Your task to perform on an android device: turn off notifications settings in the gmail app Image 0: 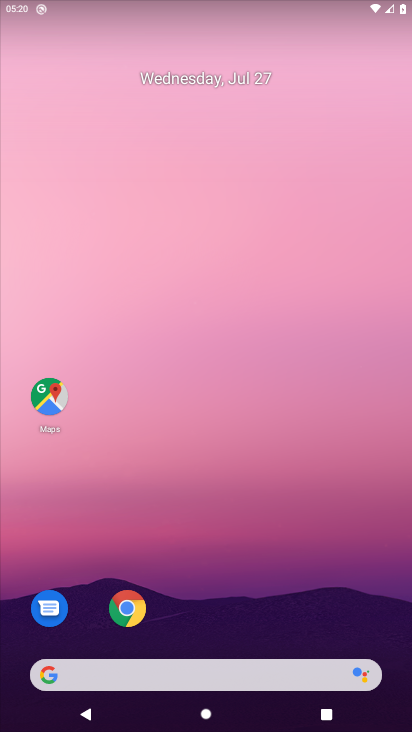
Step 0: press home button
Your task to perform on an android device: turn off notifications settings in the gmail app Image 1: 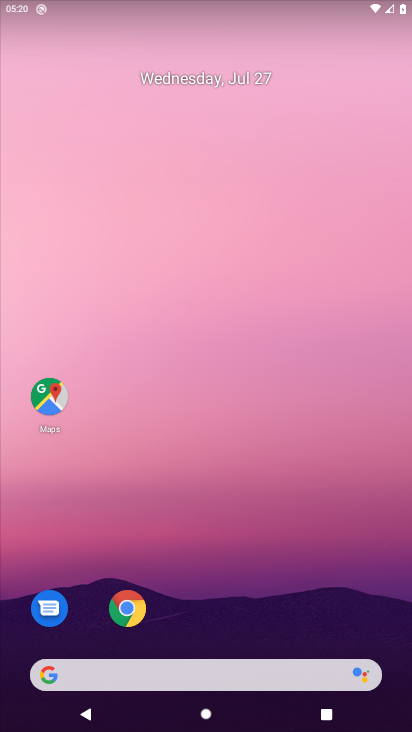
Step 1: drag from (277, 611) to (108, 12)
Your task to perform on an android device: turn off notifications settings in the gmail app Image 2: 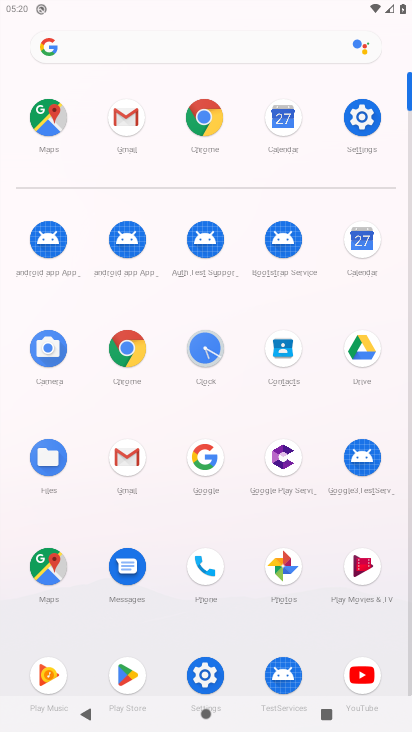
Step 2: click (122, 127)
Your task to perform on an android device: turn off notifications settings in the gmail app Image 3: 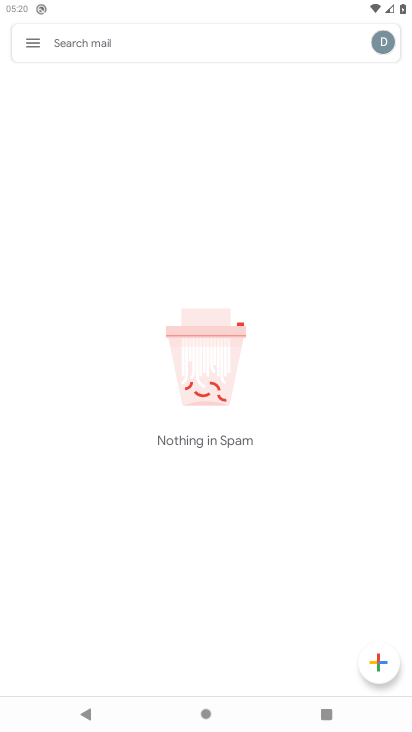
Step 3: click (28, 51)
Your task to perform on an android device: turn off notifications settings in the gmail app Image 4: 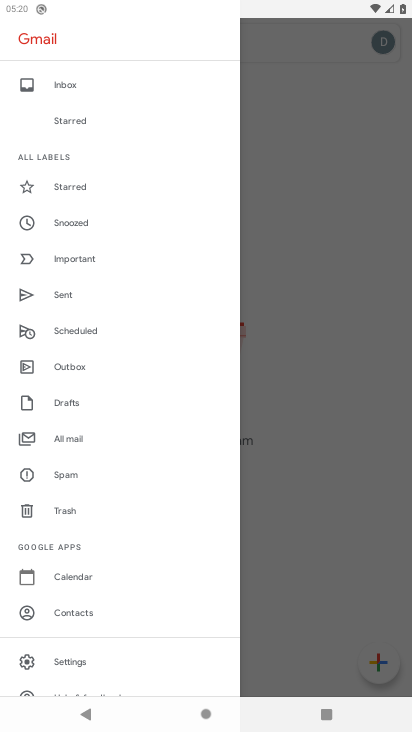
Step 4: click (55, 663)
Your task to perform on an android device: turn off notifications settings in the gmail app Image 5: 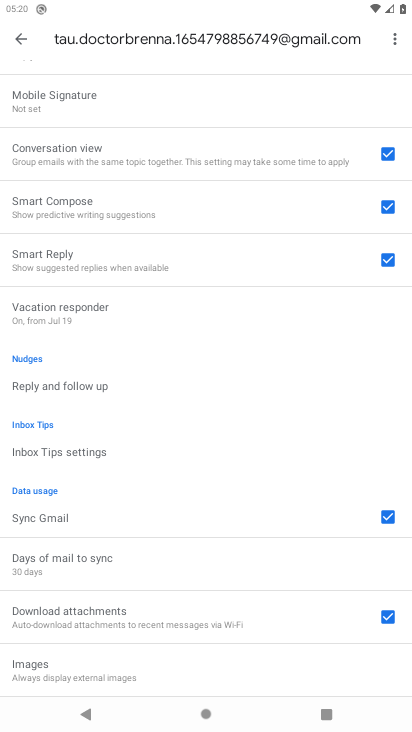
Step 5: drag from (226, 104) to (279, 724)
Your task to perform on an android device: turn off notifications settings in the gmail app Image 6: 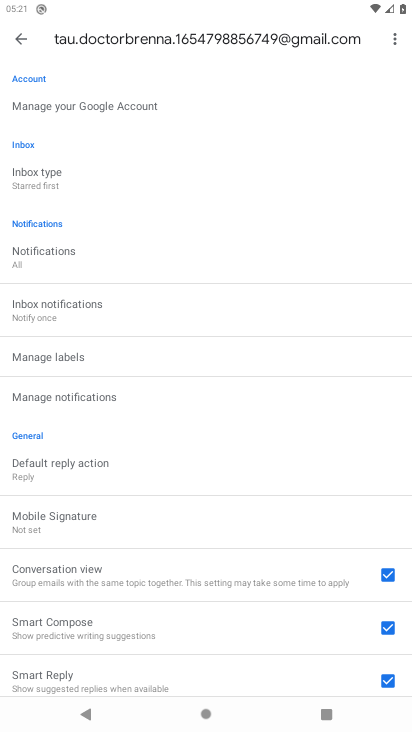
Step 6: click (68, 397)
Your task to perform on an android device: turn off notifications settings in the gmail app Image 7: 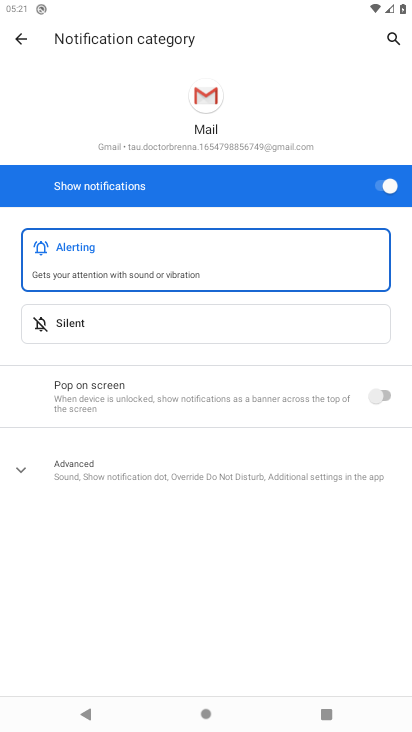
Step 7: click (387, 186)
Your task to perform on an android device: turn off notifications settings in the gmail app Image 8: 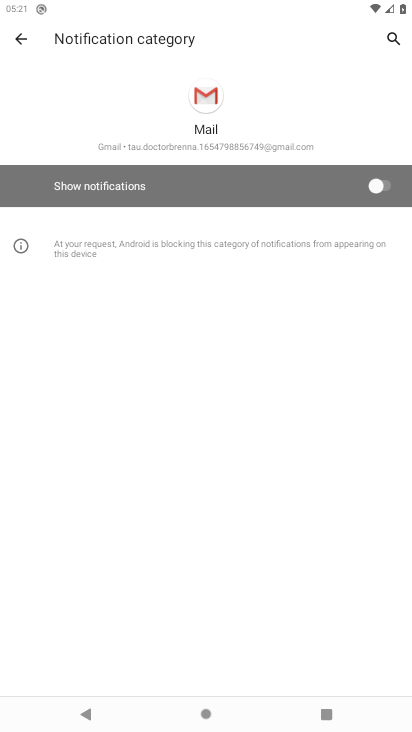
Step 8: task complete